Your task to perform on an android device: Open wifi settings Image 0: 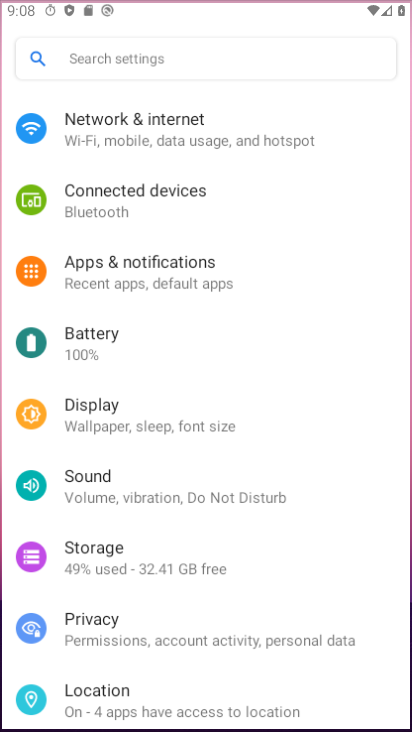
Step 0: drag from (200, 596) to (200, 121)
Your task to perform on an android device: Open wifi settings Image 1: 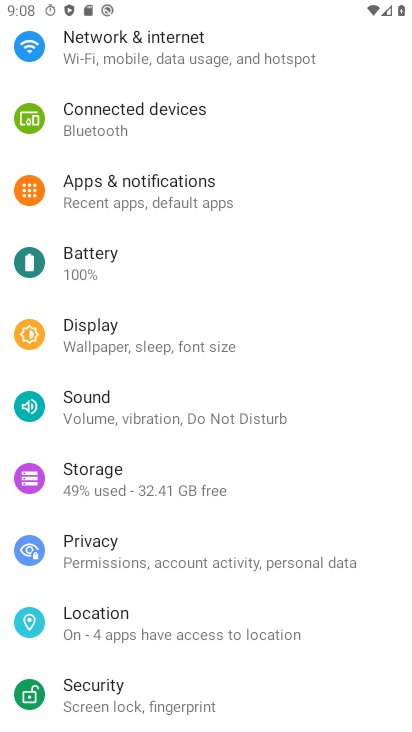
Step 1: drag from (118, 150) to (192, 534)
Your task to perform on an android device: Open wifi settings Image 2: 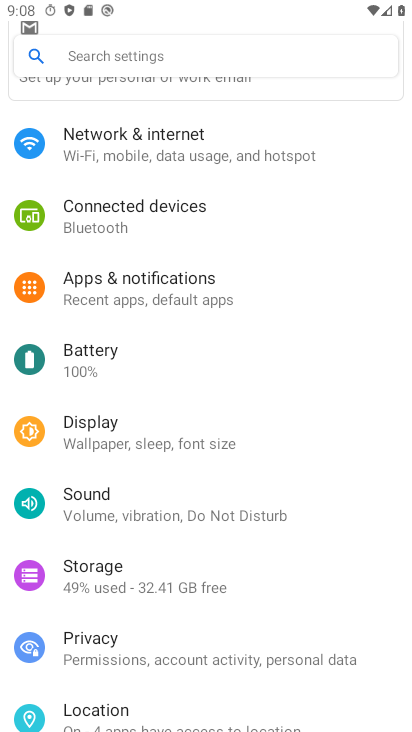
Step 2: click (148, 67)
Your task to perform on an android device: Open wifi settings Image 3: 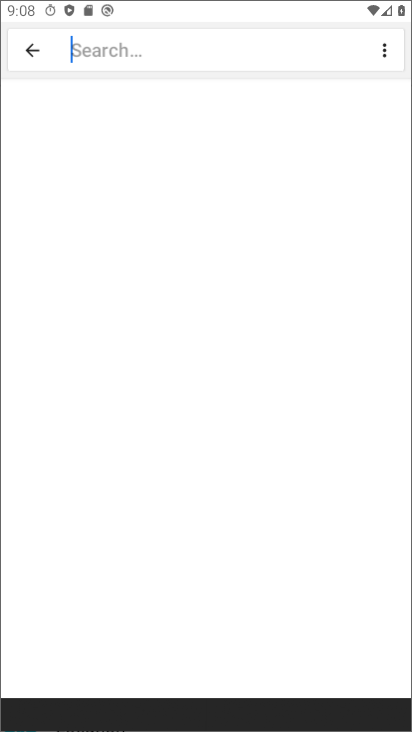
Step 3: click (142, 159)
Your task to perform on an android device: Open wifi settings Image 4: 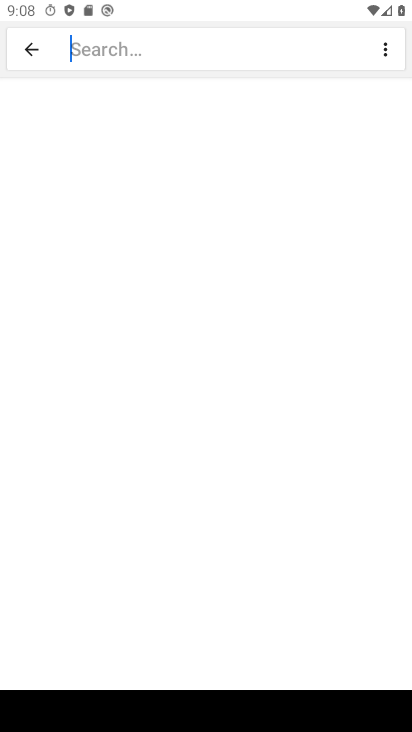
Step 4: task complete